Your task to perform on an android device: Open Chrome and go to settings Image 0: 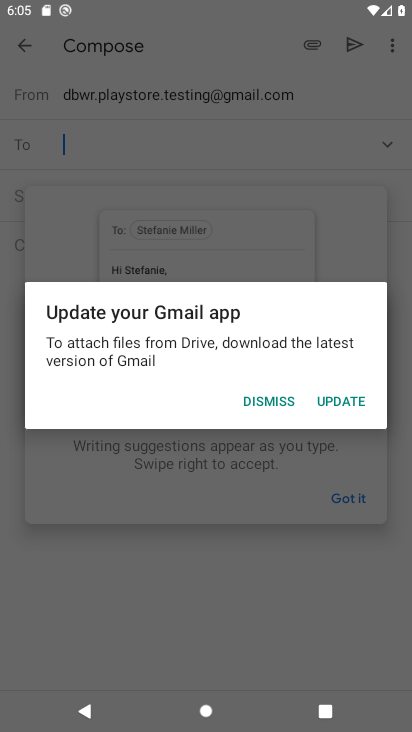
Step 0: press home button
Your task to perform on an android device: Open Chrome and go to settings Image 1: 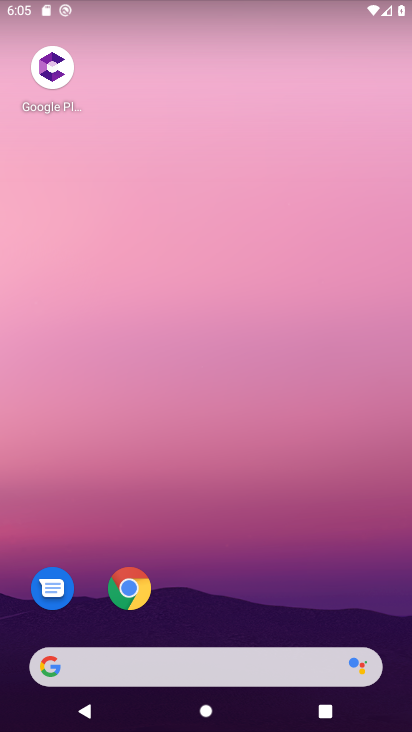
Step 1: click (131, 590)
Your task to perform on an android device: Open Chrome and go to settings Image 2: 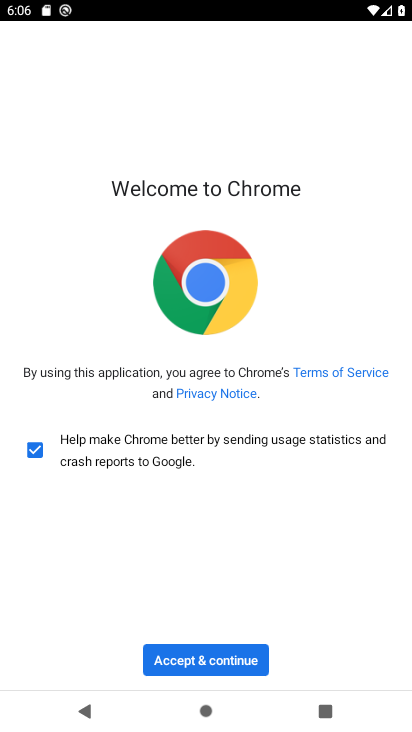
Step 2: click (202, 665)
Your task to perform on an android device: Open Chrome and go to settings Image 3: 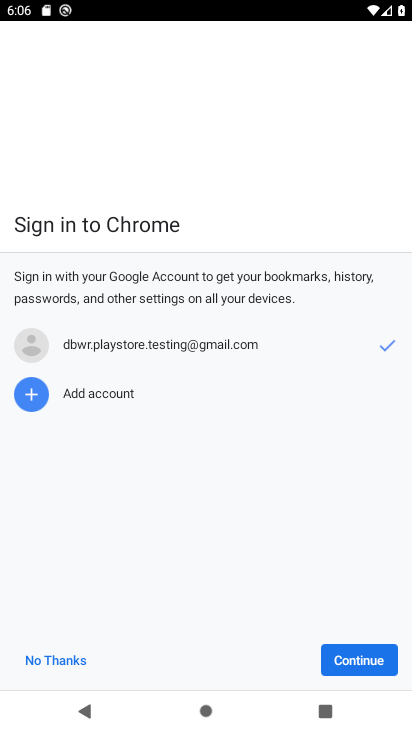
Step 3: click (358, 659)
Your task to perform on an android device: Open Chrome and go to settings Image 4: 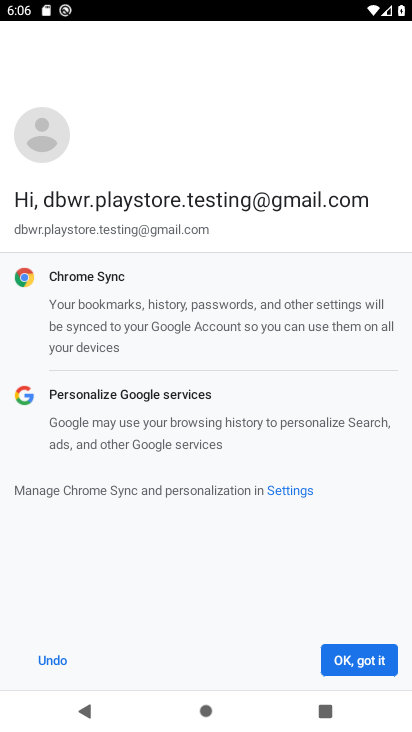
Step 4: click (360, 655)
Your task to perform on an android device: Open Chrome and go to settings Image 5: 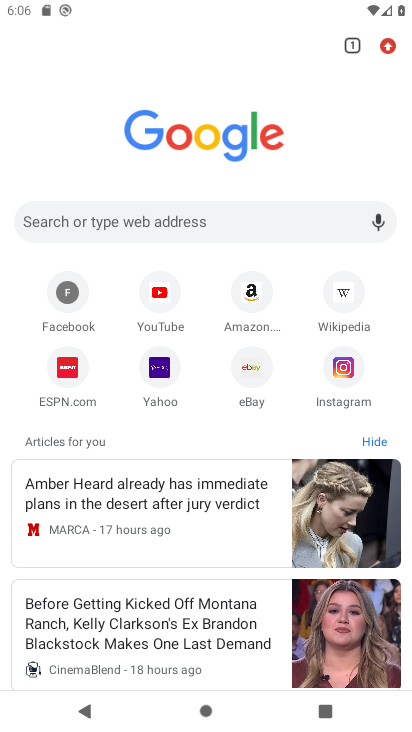
Step 5: click (382, 47)
Your task to perform on an android device: Open Chrome and go to settings Image 6: 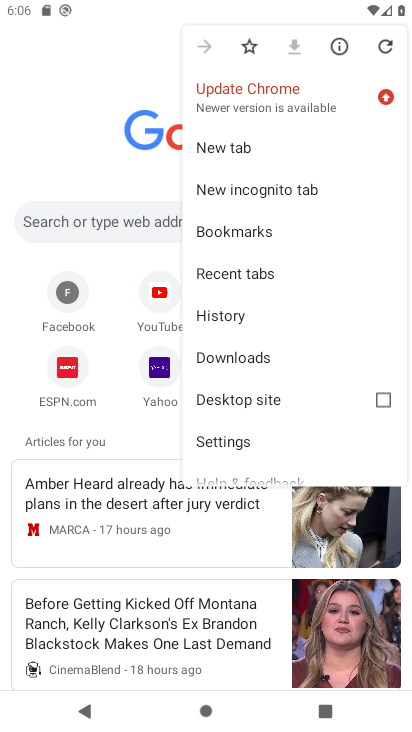
Step 6: click (231, 447)
Your task to perform on an android device: Open Chrome and go to settings Image 7: 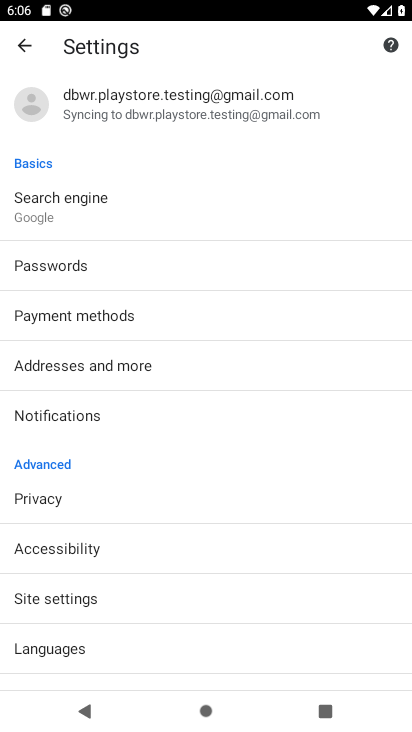
Step 7: task complete